Your task to perform on an android device: turn off location Image 0: 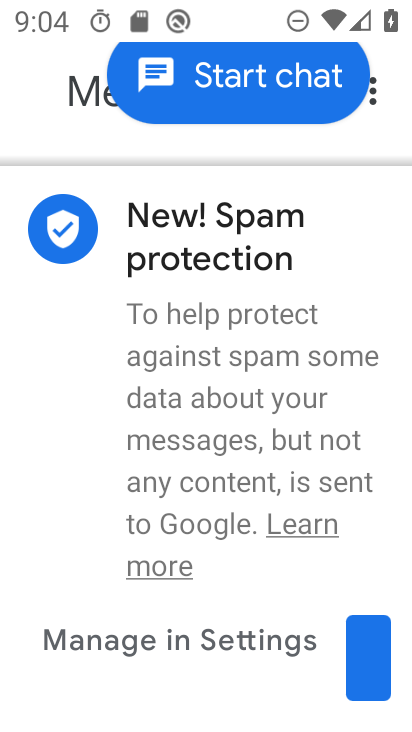
Step 0: press home button
Your task to perform on an android device: turn off location Image 1: 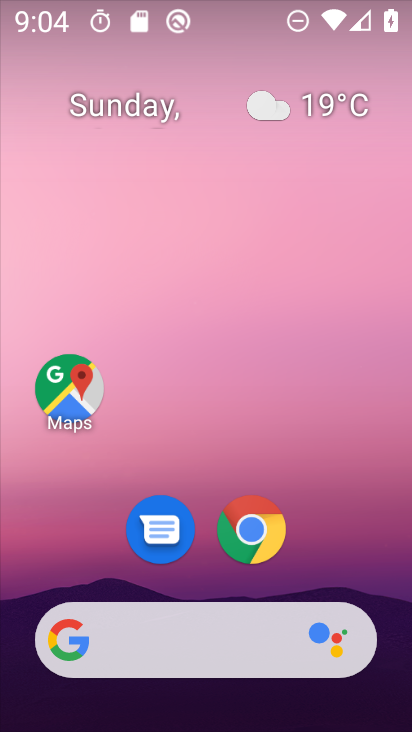
Step 1: drag from (213, 581) to (237, 3)
Your task to perform on an android device: turn off location Image 2: 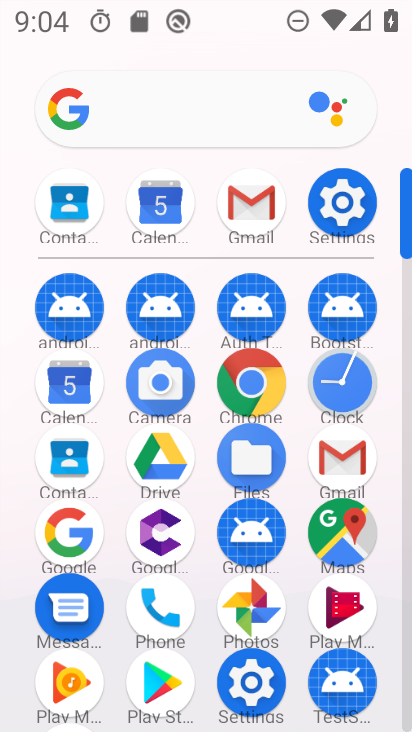
Step 2: click (341, 200)
Your task to perform on an android device: turn off location Image 3: 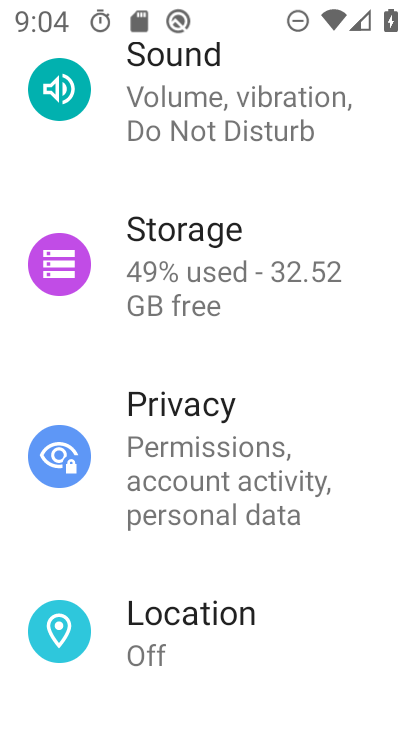
Step 3: click (224, 639)
Your task to perform on an android device: turn off location Image 4: 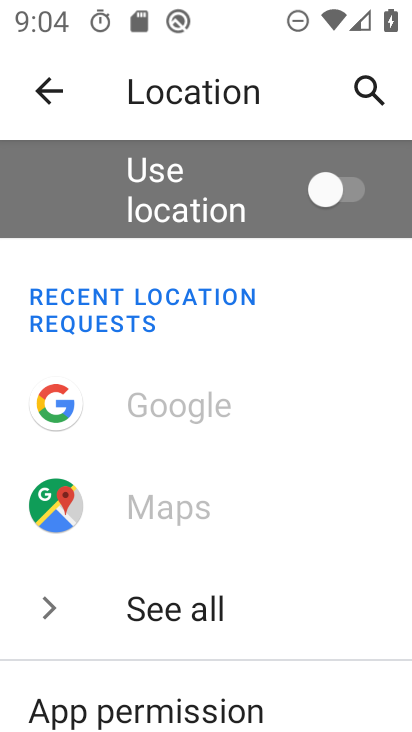
Step 4: task complete